Your task to perform on an android device: change the clock display to digital Image 0: 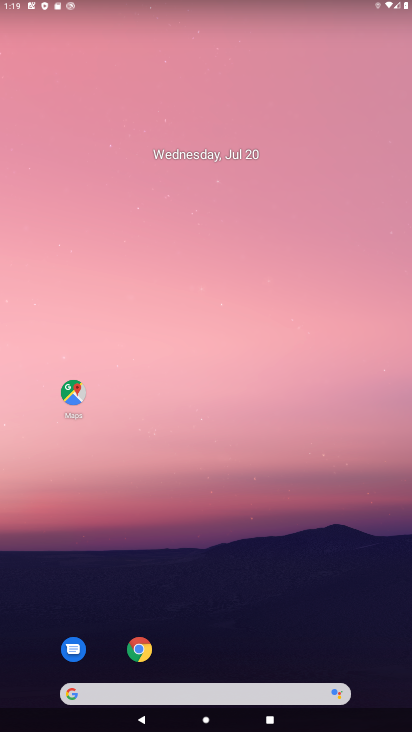
Step 0: press home button
Your task to perform on an android device: change the clock display to digital Image 1: 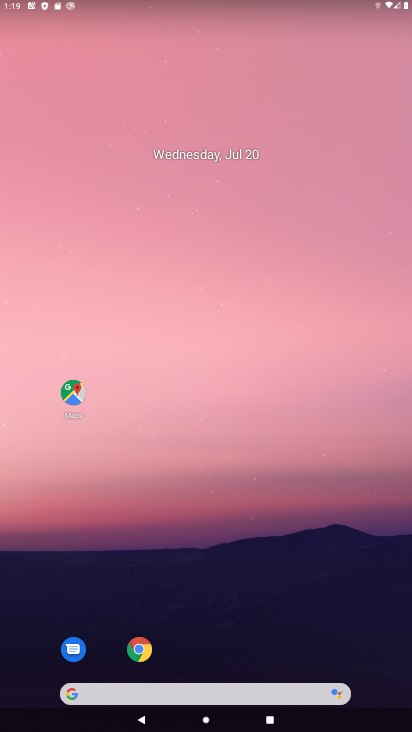
Step 1: press home button
Your task to perform on an android device: change the clock display to digital Image 2: 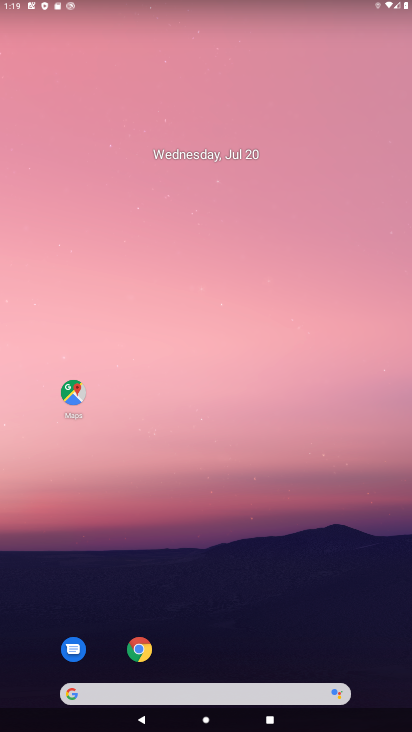
Step 2: drag from (350, 667) to (314, 46)
Your task to perform on an android device: change the clock display to digital Image 3: 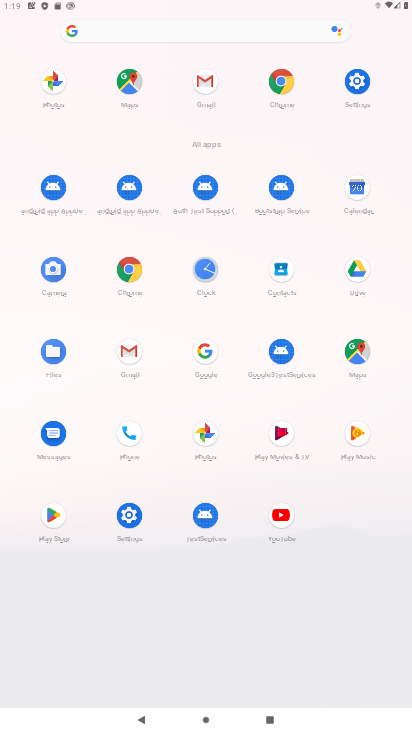
Step 3: click (212, 294)
Your task to perform on an android device: change the clock display to digital Image 4: 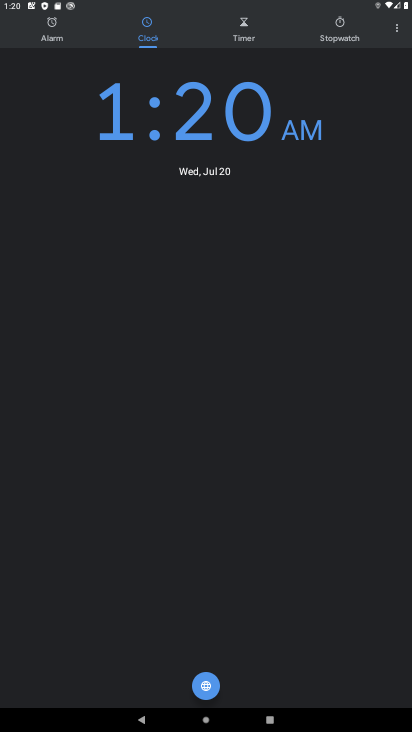
Step 4: click (401, 22)
Your task to perform on an android device: change the clock display to digital Image 5: 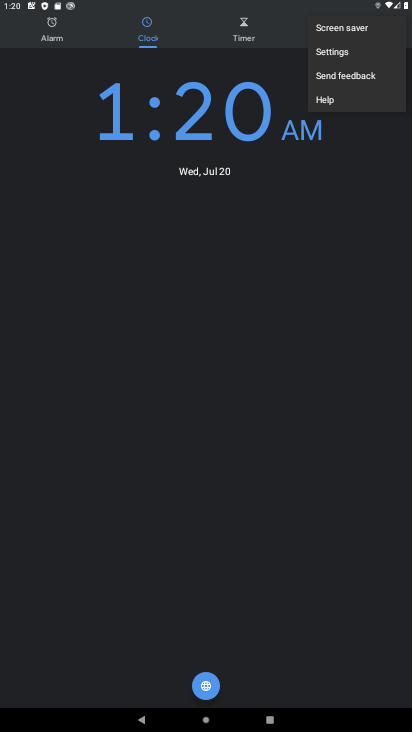
Step 5: click (339, 63)
Your task to perform on an android device: change the clock display to digital Image 6: 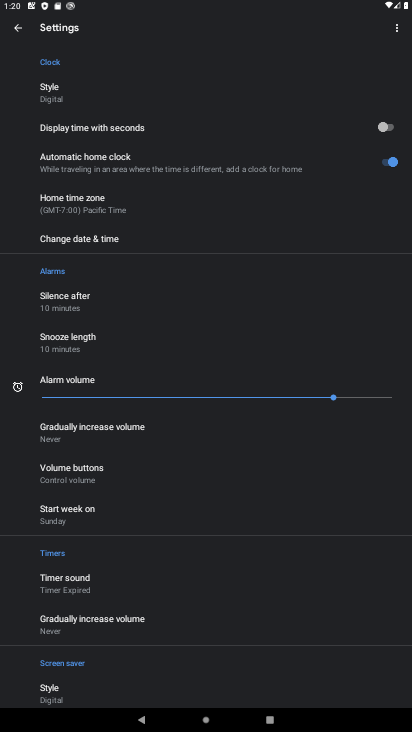
Step 6: click (69, 98)
Your task to perform on an android device: change the clock display to digital Image 7: 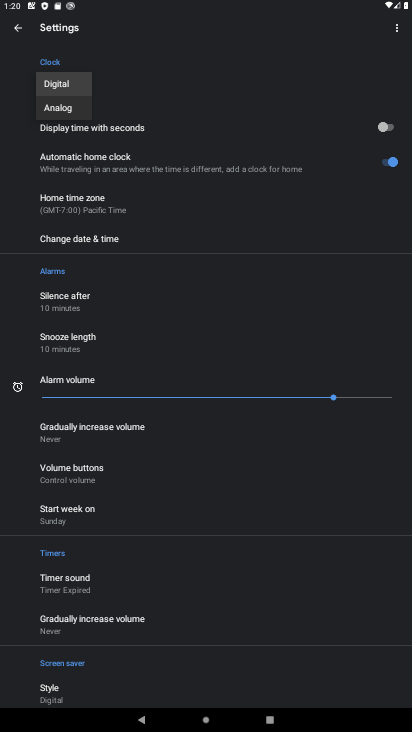
Step 7: click (74, 79)
Your task to perform on an android device: change the clock display to digital Image 8: 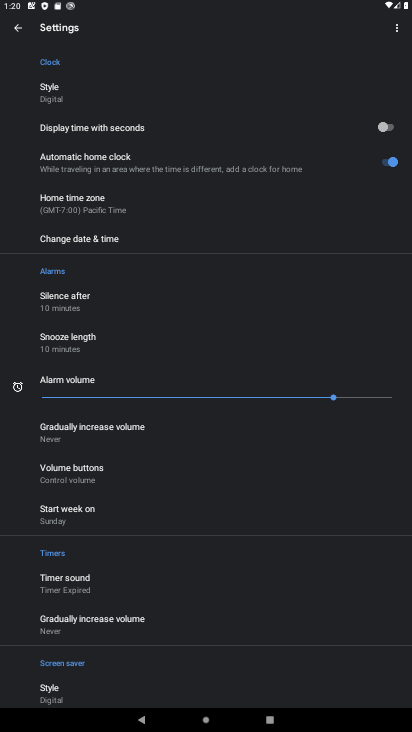
Step 8: task complete